Your task to perform on an android device: Open CNN.com Image 0: 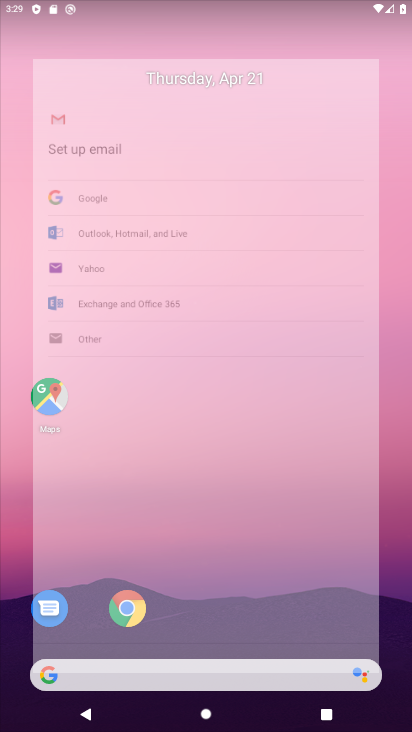
Step 0: drag from (264, 603) to (322, 240)
Your task to perform on an android device: Open CNN.com Image 1: 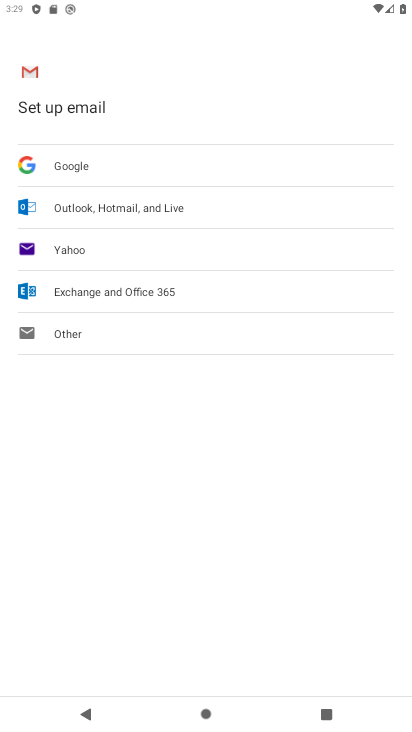
Step 1: press home button
Your task to perform on an android device: Open CNN.com Image 2: 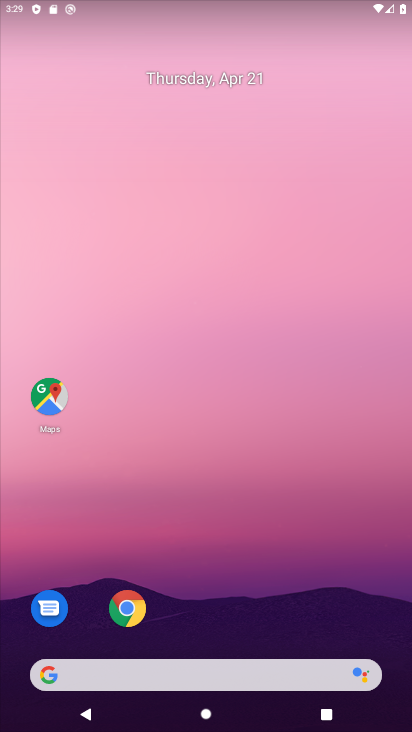
Step 2: click (121, 610)
Your task to perform on an android device: Open CNN.com Image 3: 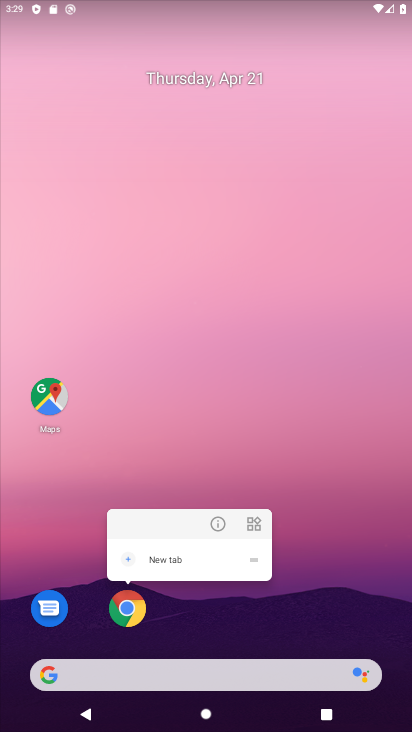
Step 3: click (118, 606)
Your task to perform on an android device: Open CNN.com Image 4: 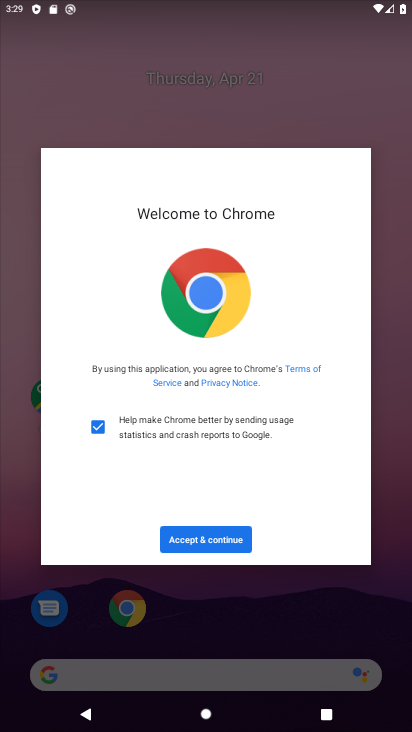
Step 4: click (215, 537)
Your task to perform on an android device: Open CNN.com Image 5: 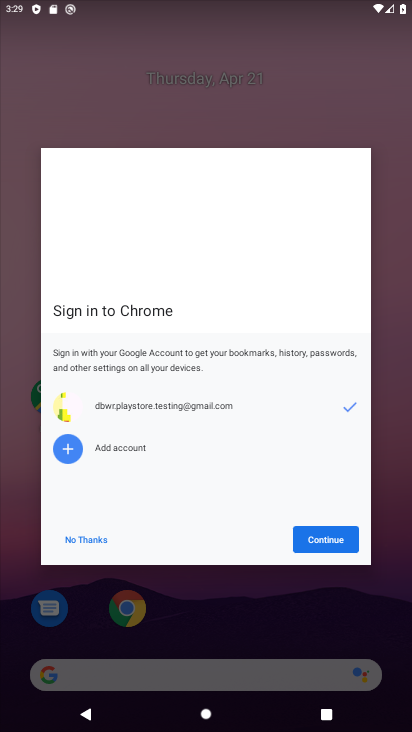
Step 5: click (348, 537)
Your task to perform on an android device: Open CNN.com Image 6: 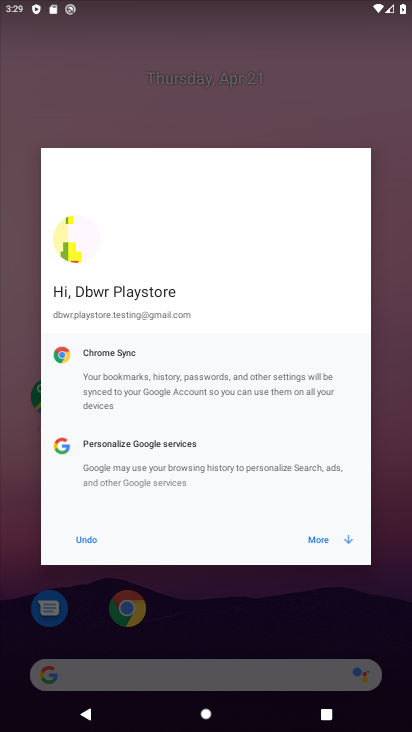
Step 6: click (323, 547)
Your task to perform on an android device: Open CNN.com Image 7: 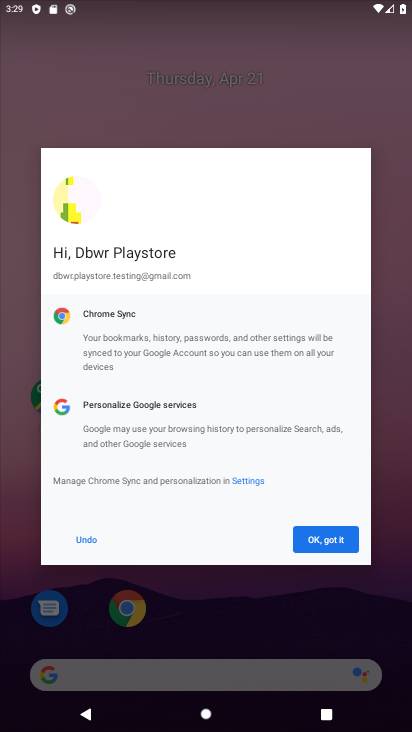
Step 7: click (323, 546)
Your task to perform on an android device: Open CNN.com Image 8: 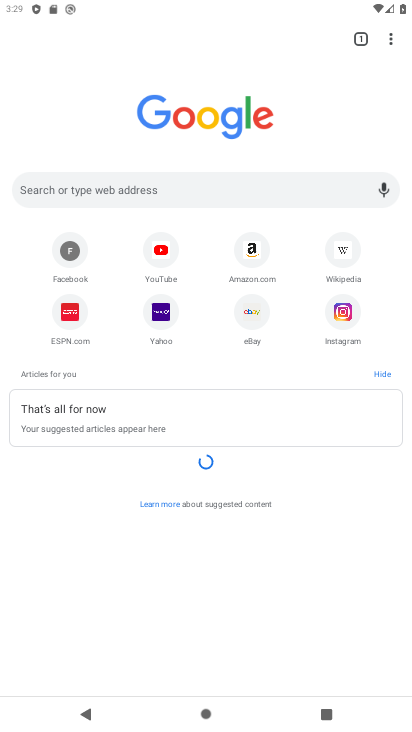
Step 8: click (143, 189)
Your task to perform on an android device: Open CNN.com Image 9: 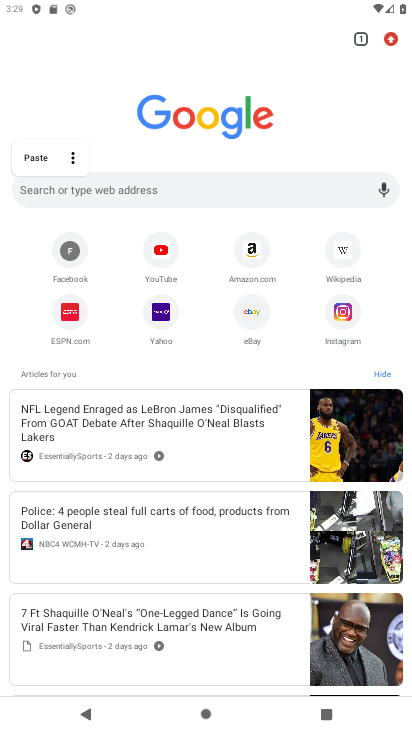
Step 9: click (130, 192)
Your task to perform on an android device: Open CNN.com Image 10: 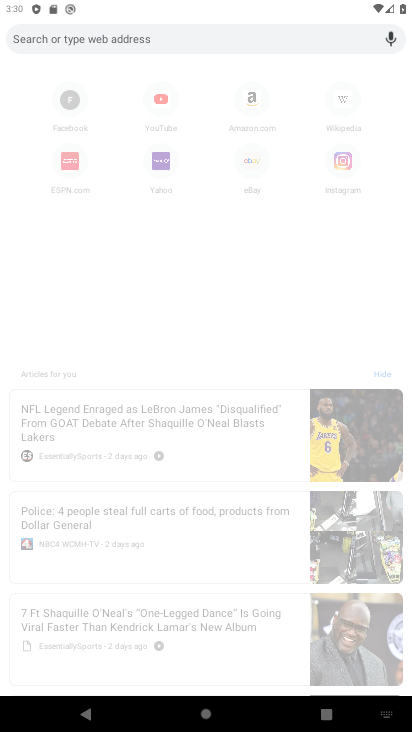
Step 10: type "cnn.com"
Your task to perform on an android device: Open CNN.com Image 11: 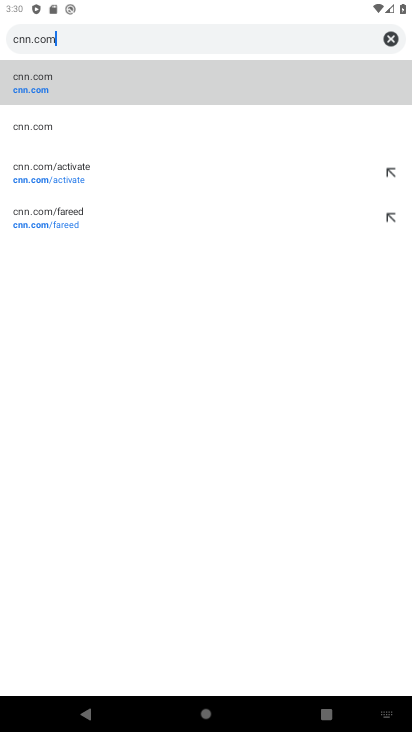
Step 11: click (31, 92)
Your task to perform on an android device: Open CNN.com Image 12: 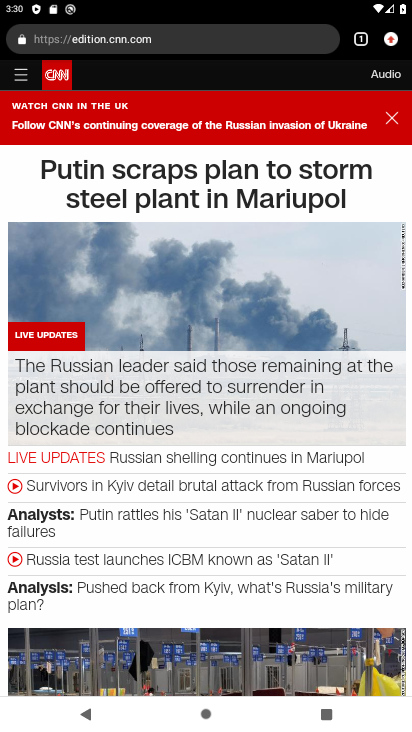
Step 12: task complete